Your task to perform on an android device: toggle data saver in the chrome app Image 0: 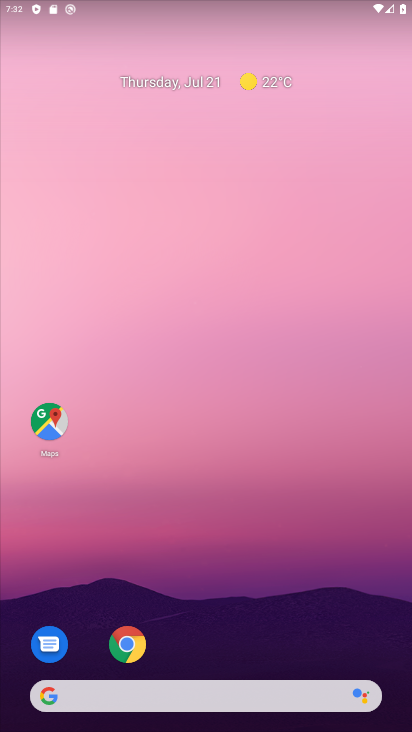
Step 0: drag from (374, 599) to (344, 168)
Your task to perform on an android device: toggle data saver in the chrome app Image 1: 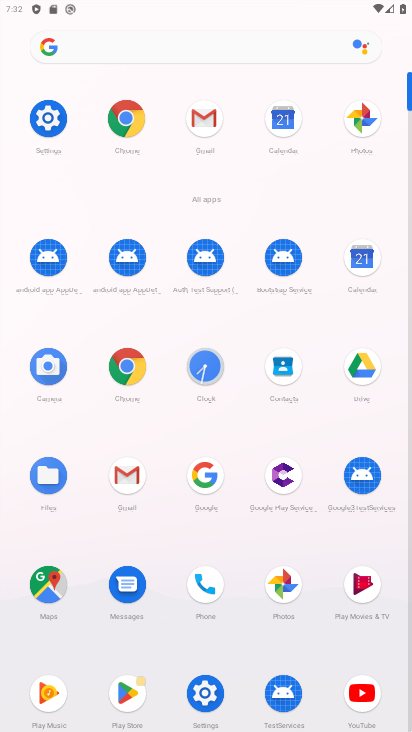
Step 1: click (133, 369)
Your task to perform on an android device: toggle data saver in the chrome app Image 2: 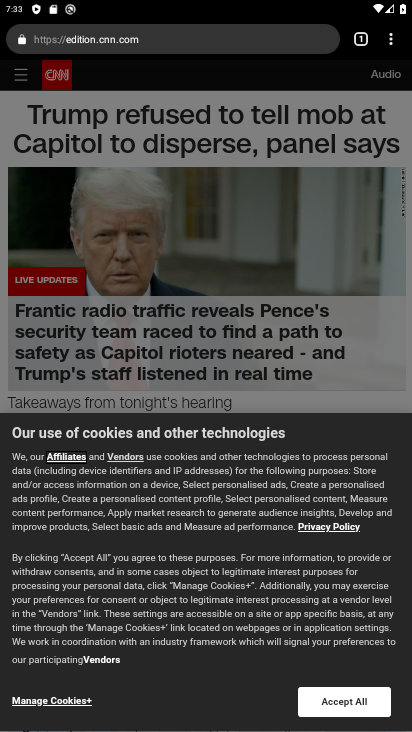
Step 2: click (392, 38)
Your task to perform on an android device: toggle data saver in the chrome app Image 3: 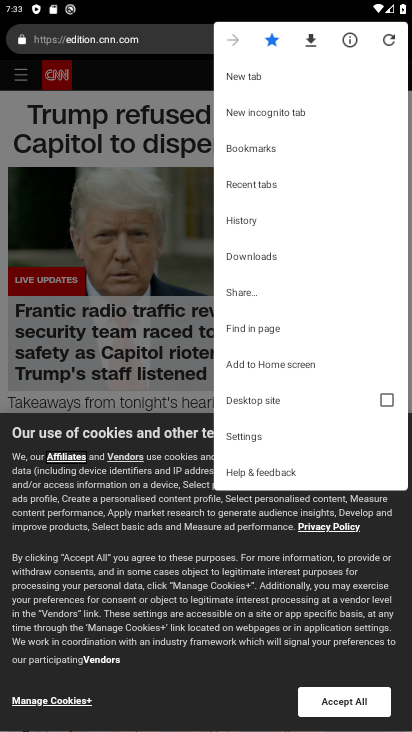
Step 3: click (259, 437)
Your task to perform on an android device: toggle data saver in the chrome app Image 4: 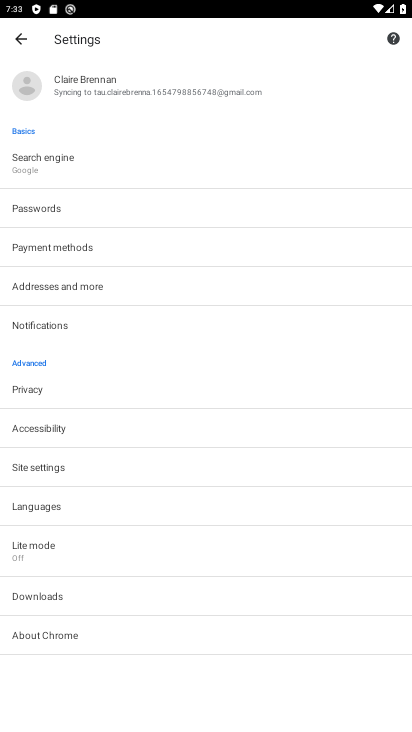
Step 4: drag from (268, 487) to (299, 365)
Your task to perform on an android device: toggle data saver in the chrome app Image 5: 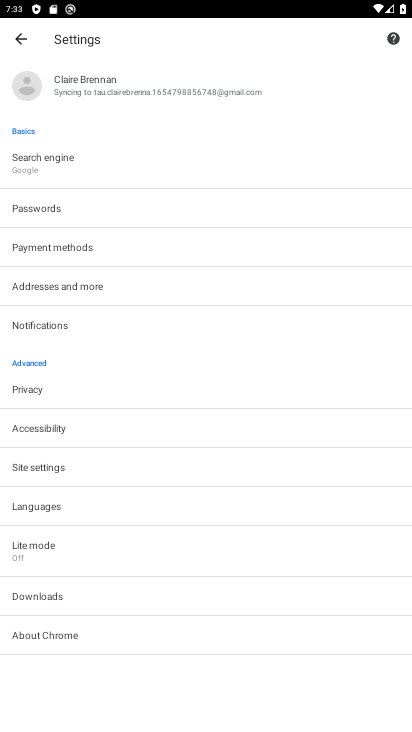
Step 5: click (235, 543)
Your task to perform on an android device: toggle data saver in the chrome app Image 6: 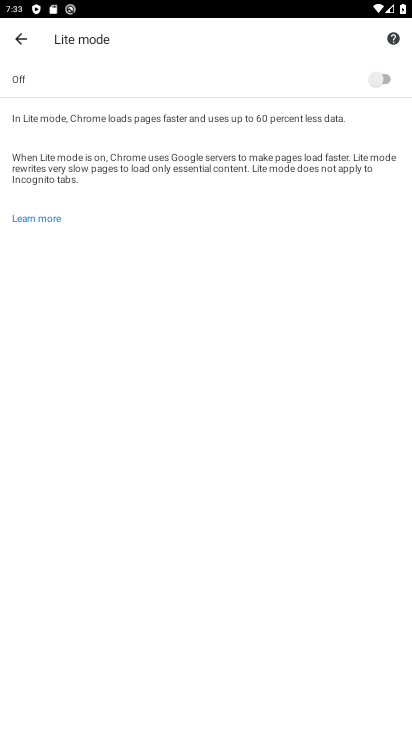
Step 6: click (387, 80)
Your task to perform on an android device: toggle data saver in the chrome app Image 7: 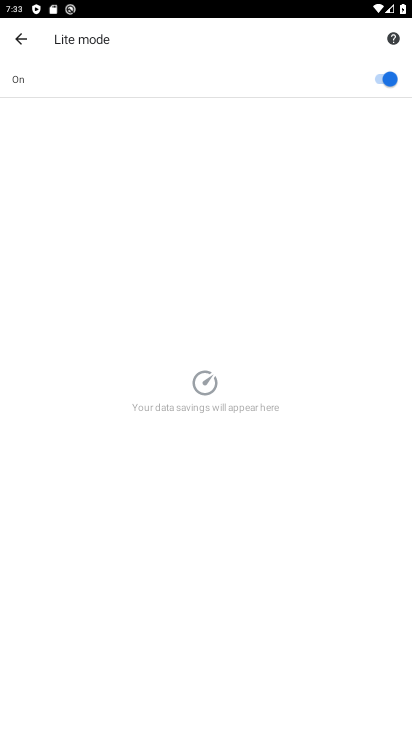
Step 7: task complete